Your task to perform on an android device: turn off notifications settings in the gmail app Image 0: 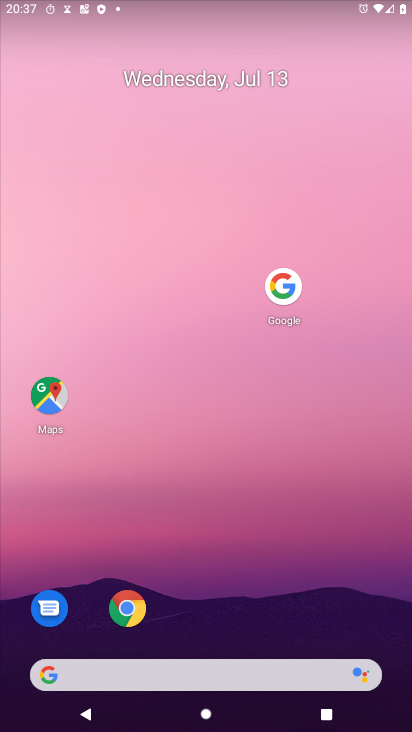
Step 0: drag from (239, 641) to (288, 73)
Your task to perform on an android device: turn off notifications settings in the gmail app Image 1: 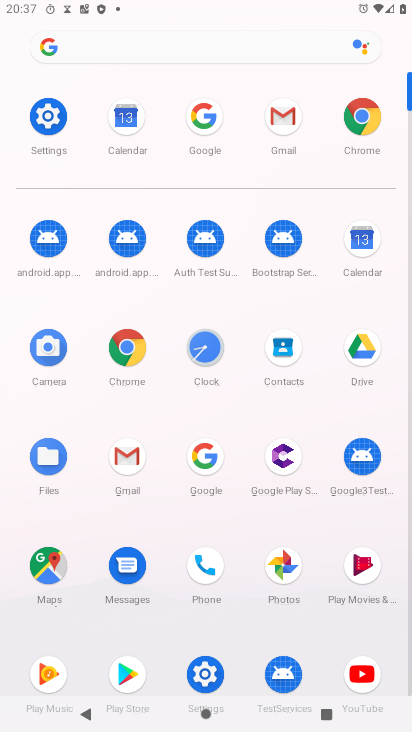
Step 1: click (119, 453)
Your task to perform on an android device: turn off notifications settings in the gmail app Image 2: 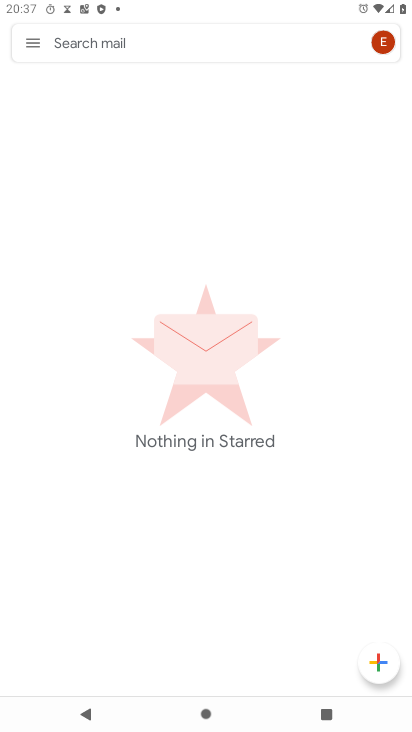
Step 2: click (22, 39)
Your task to perform on an android device: turn off notifications settings in the gmail app Image 3: 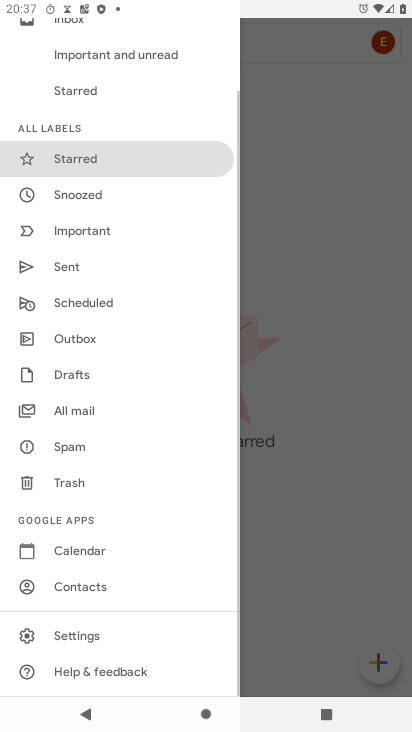
Step 3: click (89, 634)
Your task to perform on an android device: turn off notifications settings in the gmail app Image 4: 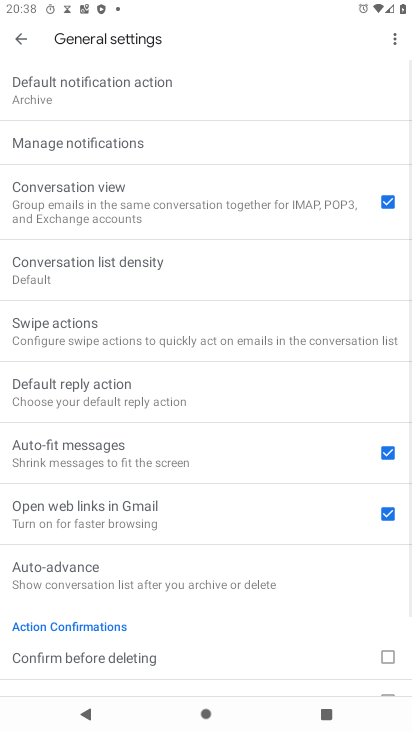
Step 4: click (102, 127)
Your task to perform on an android device: turn off notifications settings in the gmail app Image 5: 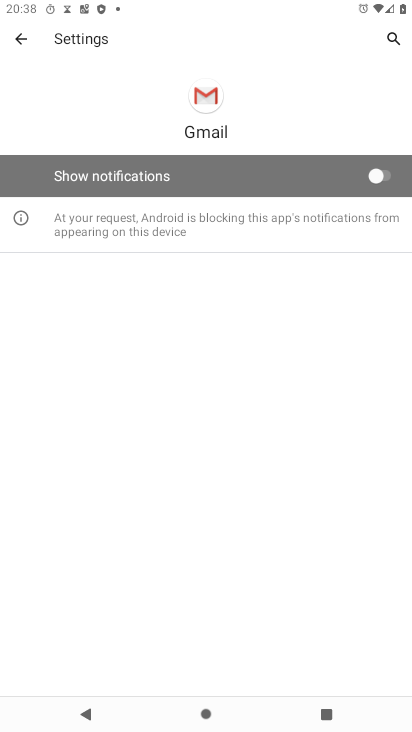
Step 5: task complete